Your task to perform on an android device: make emails show in primary in the gmail app Image 0: 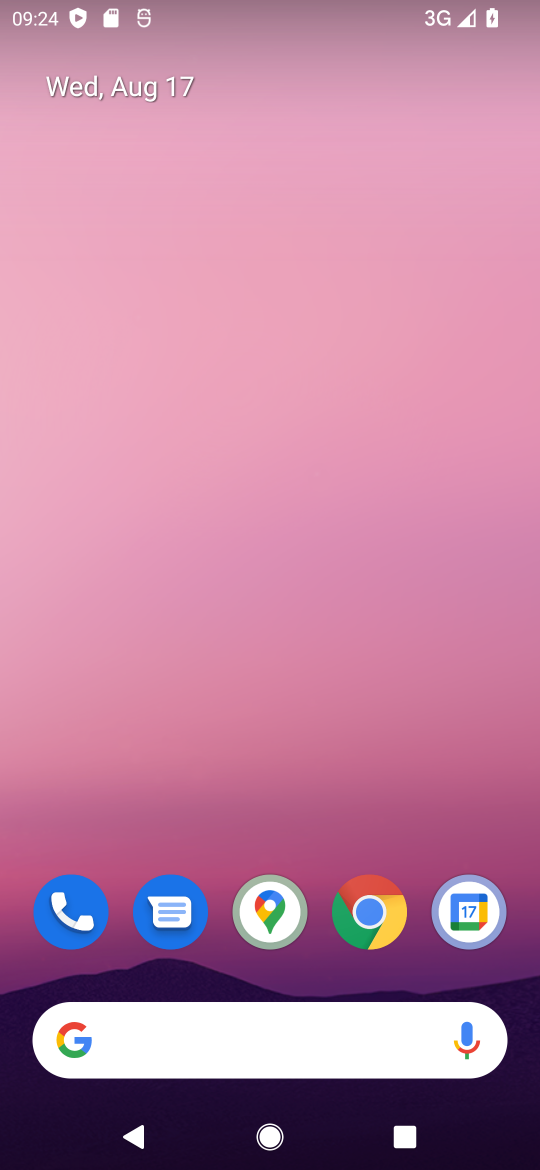
Step 0: drag from (211, 998) to (193, 401)
Your task to perform on an android device: make emails show in primary in the gmail app Image 1: 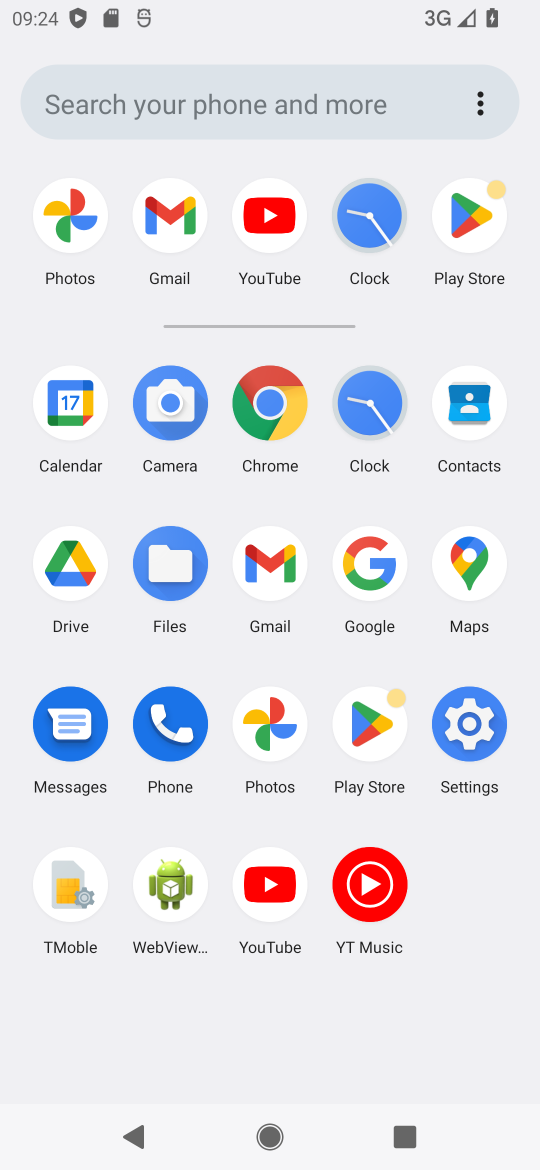
Step 1: click (283, 548)
Your task to perform on an android device: make emails show in primary in the gmail app Image 2: 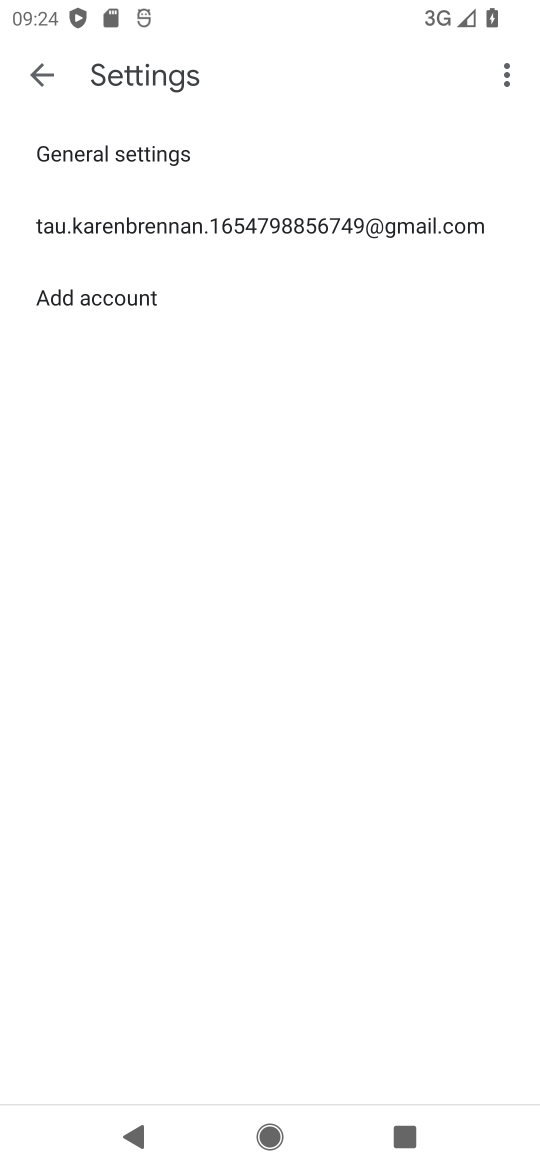
Step 2: click (170, 228)
Your task to perform on an android device: make emails show in primary in the gmail app Image 3: 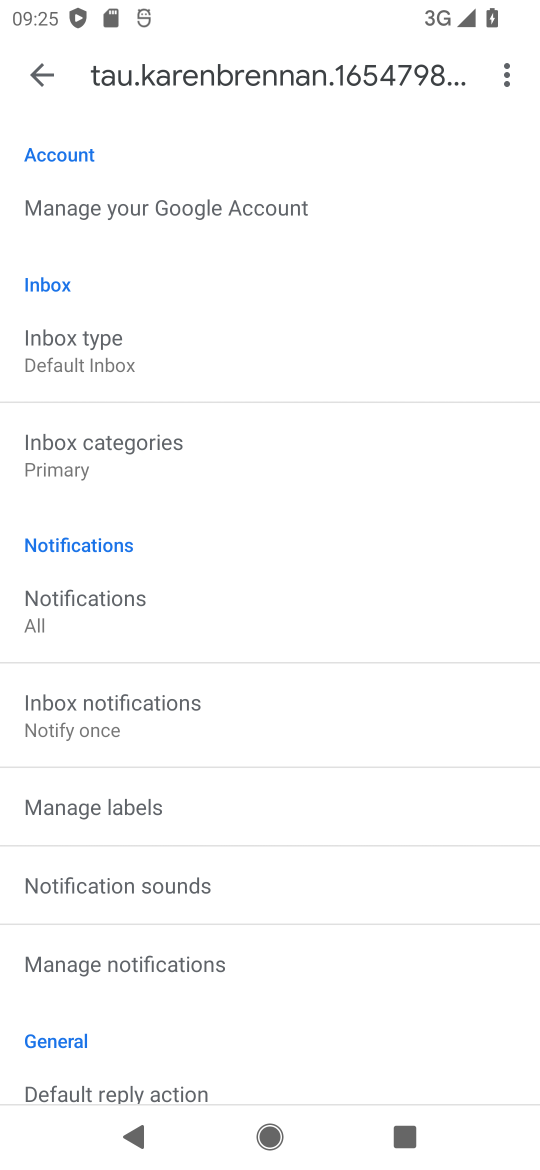
Step 3: task complete